Your task to perform on an android device: Go to Wikipedia Image 0: 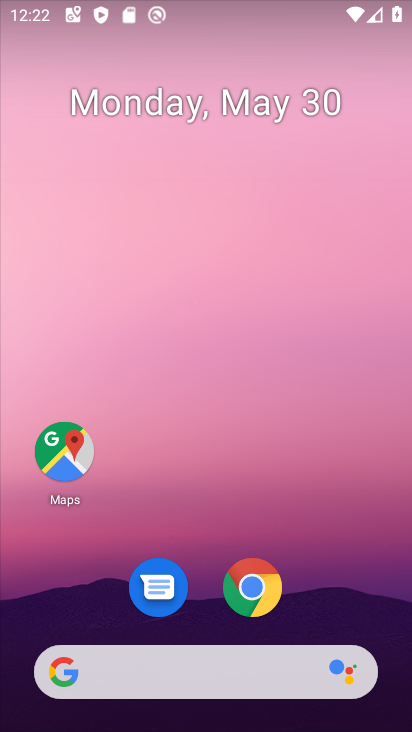
Step 0: click (258, 589)
Your task to perform on an android device: Go to Wikipedia Image 1: 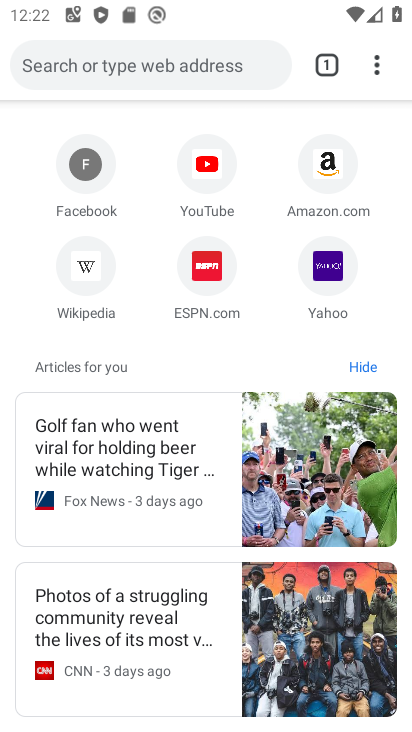
Step 1: click (337, 60)
Your task to perform on an android device: Go to Wikipedia Image 2: 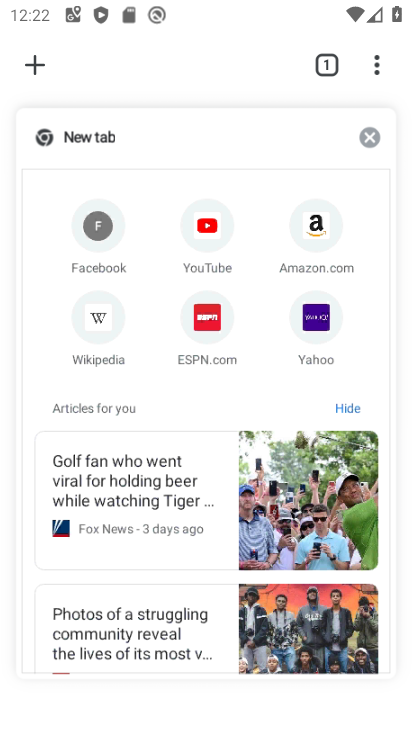
Step 2: click (368, 135)
Your task to perform on an android device: Go to Wikipedia Image 3: 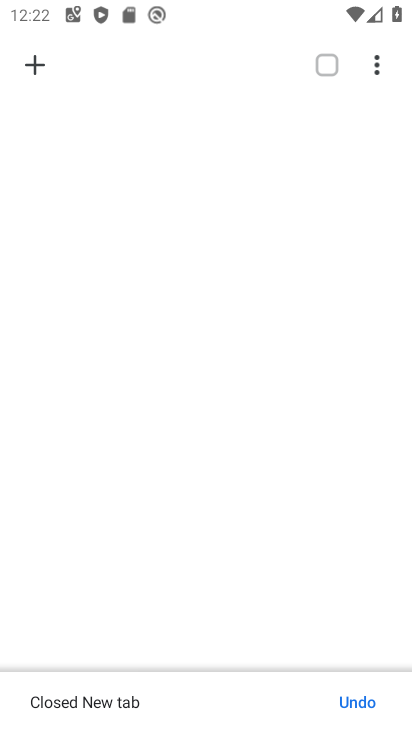
Step 3: click (28, 65)
Your task to perform on an android device: Go to Wikipedia Image 4: 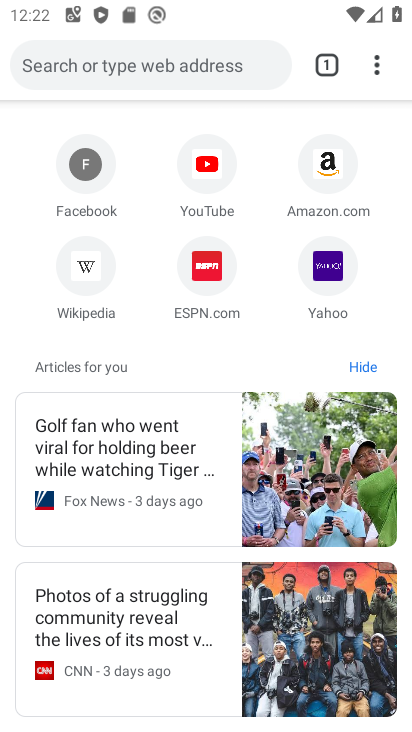
Step 4: click (95, 271)
Your task to perform on an android device: Go to Wikipedia Image 5: 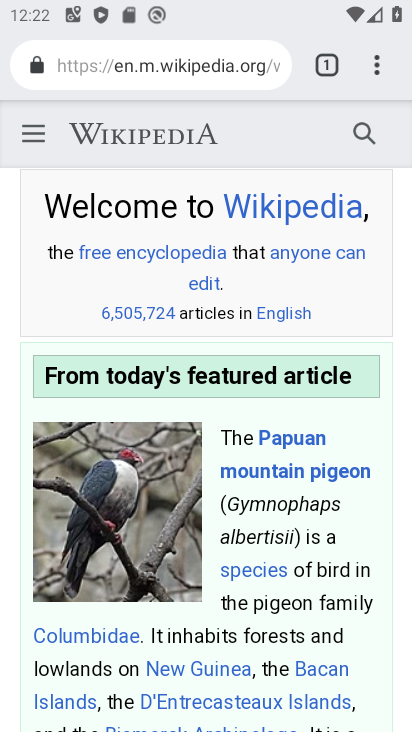
Step 5: task complete